Your task to perform on an android device: Open Google Maps and go to "Timeline" Image 0: 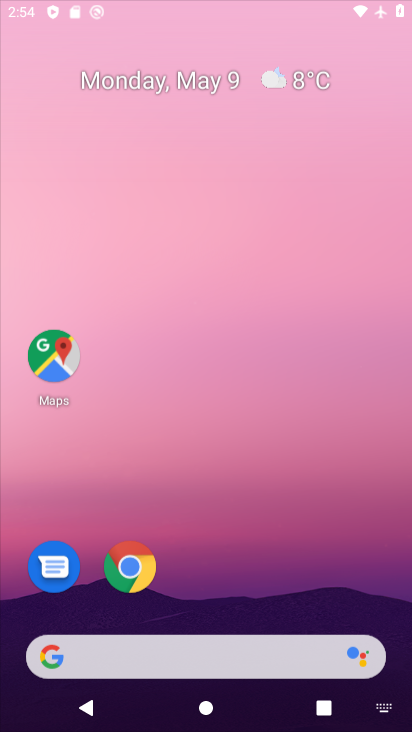
Step 0: click (322, 9)
Your task to perform on an android device: Open Google Maps and go to "Timeline" Image 1: 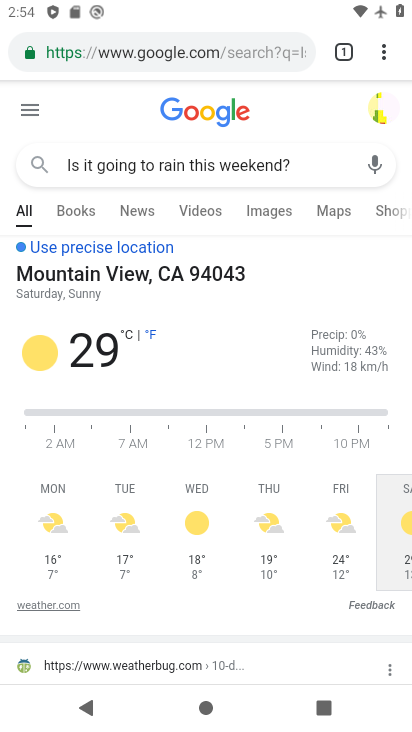
Step 1: press back button
Your task to perform on an android device: Open Google Maps and go to "Timeline" Image 2: 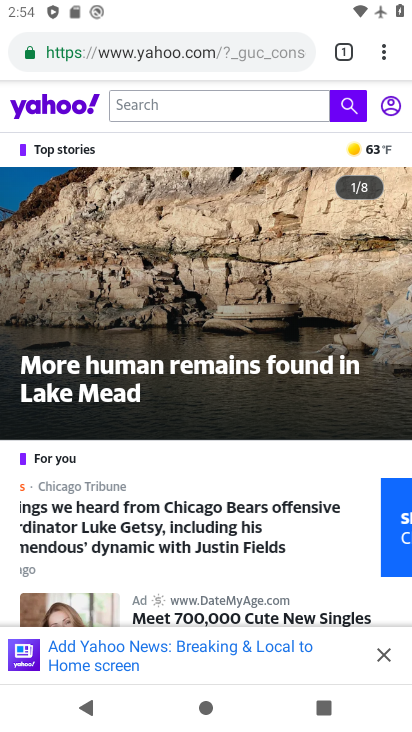
Step 2: press back button
Your task to perform on an android device: Open Google Maps and go to "Timeline" Image 3: 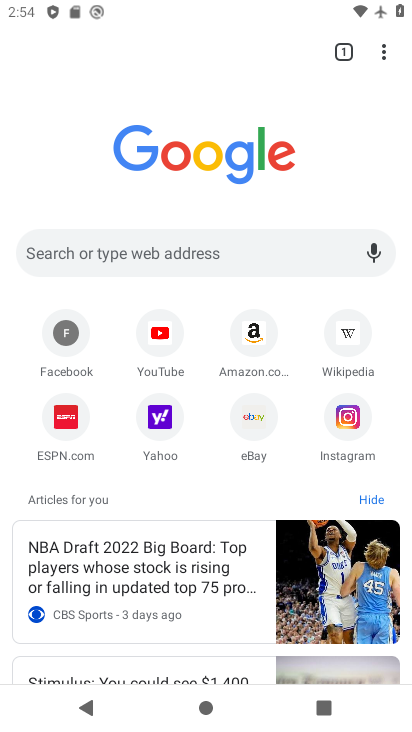
Step 3: press back button
Your task to perform on an android device: Open Google Maps and go to "Timeline" Image 4: 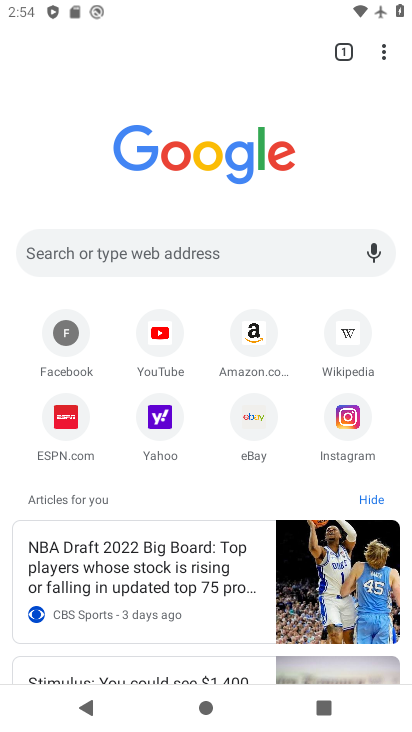
Step 4: press home button
Your task to perform on an android device: Open Google Maps and go to "Timeline" Image 5: 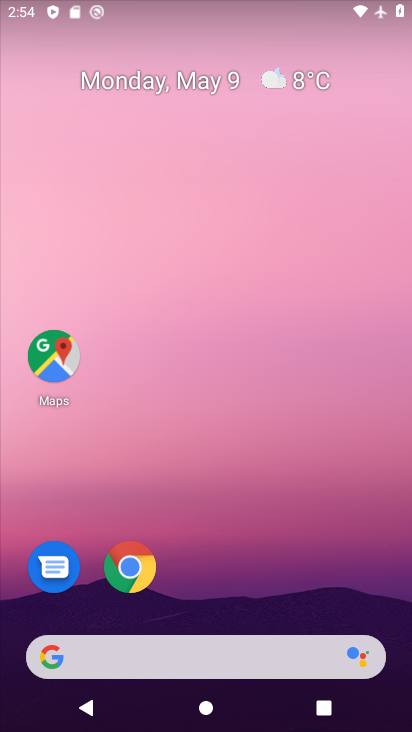
Step 5: drag from (268, 539) to (251, 2)
Your task to perform on an android device: Open Google Maps and go to "Timeline" Image 6: 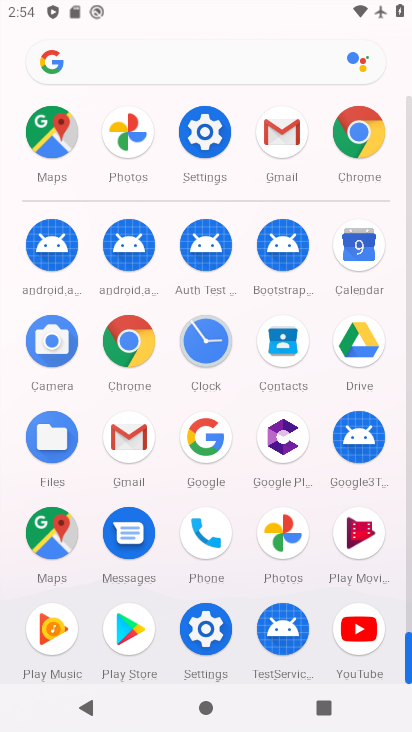
Step 6: click (52, 532)
Your task to perform on an android device: Open Google Maps and go to "Timeline" Image 7: 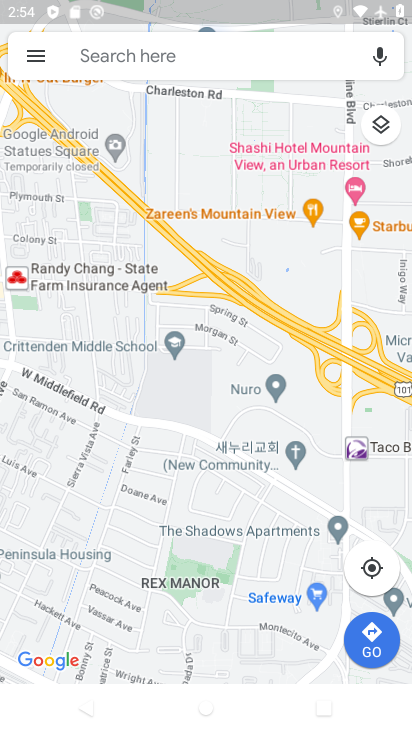
Step 7: click (16, 47)
Your task to perform on an android device: Open Google Maps and go to "Timeline" Image 8: 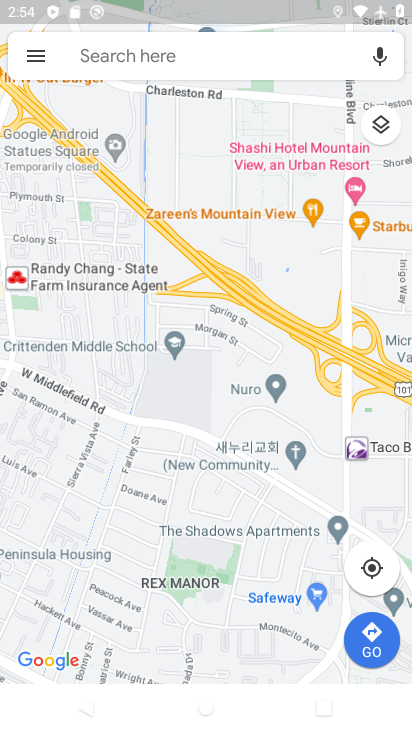
Step 8: click (32, 61)
Your task to perform on an android device: Open Google Maps and go to "Timeline" Image 9: 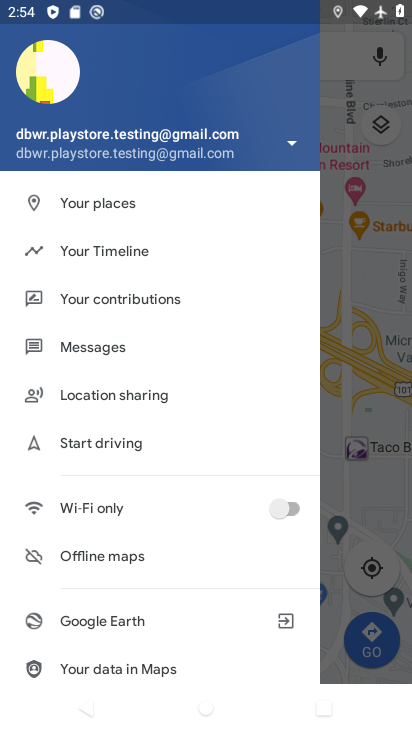
Step 9: click (150, 250)
Your task to perform on an android device: Open Google Maps and go to "Timeline" Image 10: 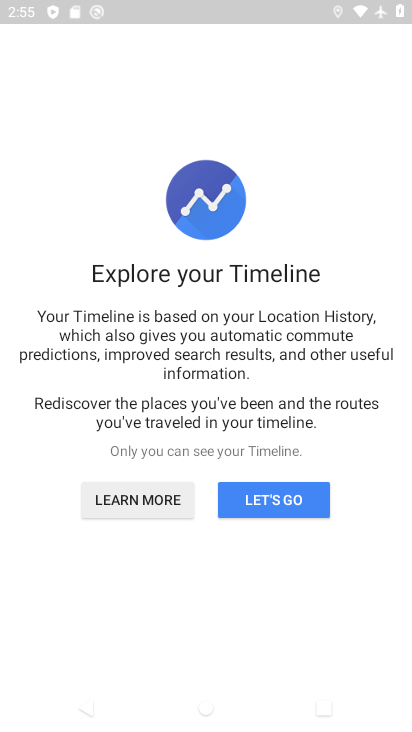
Step 10: click (256, 497)
Your task to perform on an android device: Open Google Maps and go to "Timeline" Image 11: 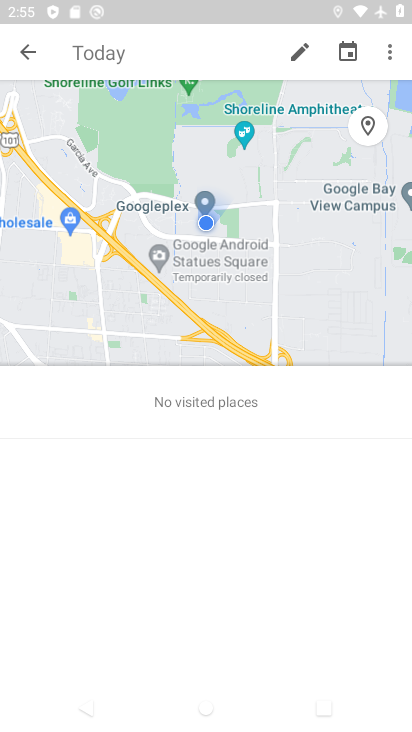
Step 11: task complete